Your task to perform on an android device: Search for seafood restaurants on Google Maps Image 0: 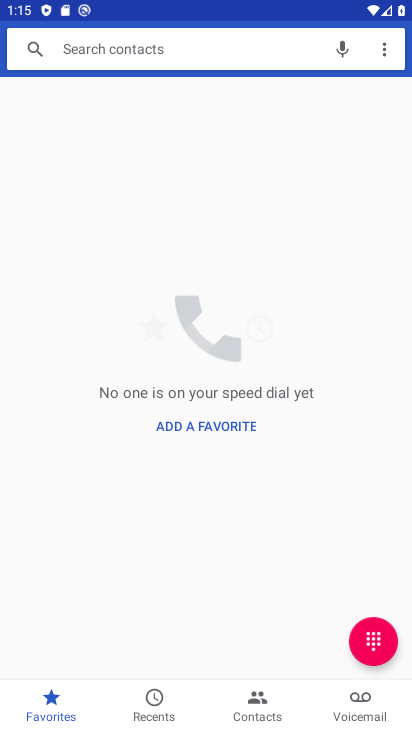
Step 0: press home button
Your task to perform on an android device: Search for seafood restaurants on Google Maps Image 1: 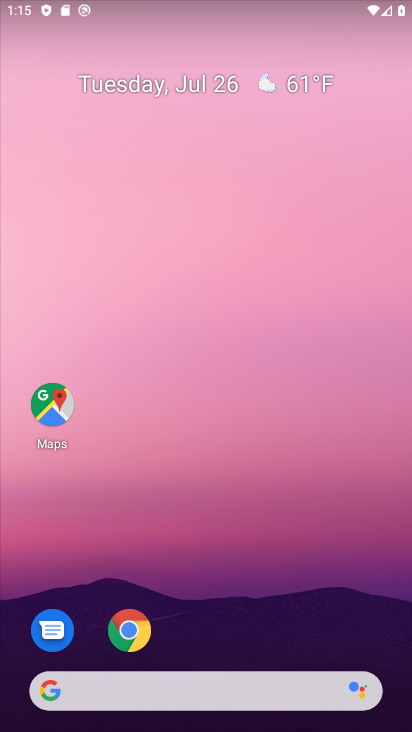
Step 1: click (44, 404)
Your task to perform on an android device: Search for seafood restaurants on Google Maps Image 2: 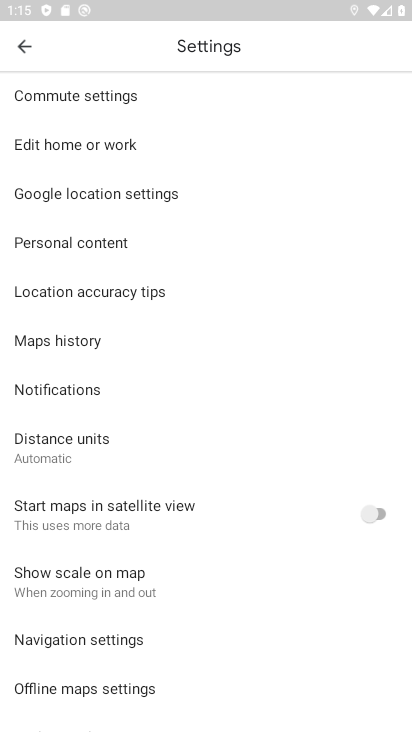
Step 2: click (22, 47)
Your task to perform on an android device: Search for seafood restaurants on Google Maps Image 3: 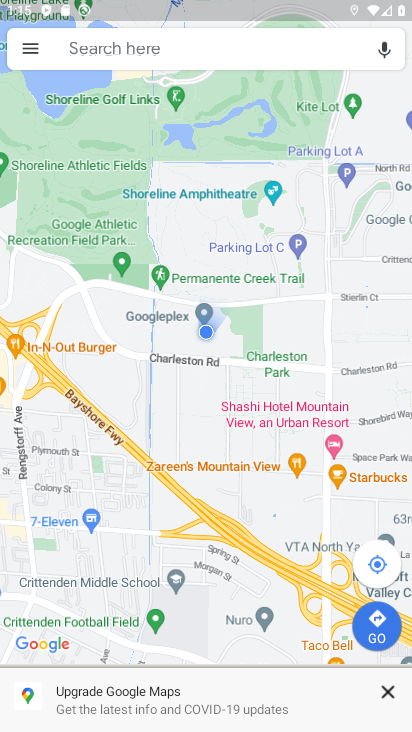
Step 3: click (121, 38)
Your task to perform on an android device: Search for seafood restaurants on Google Maps Image 4: 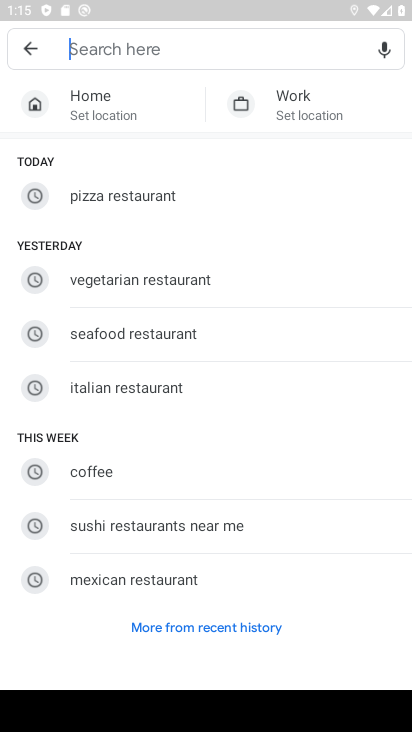
Step 4: type "seafood restaurants"
Your task to perform on an android device: Search for seafood restaurants on Google Maps Image 5: 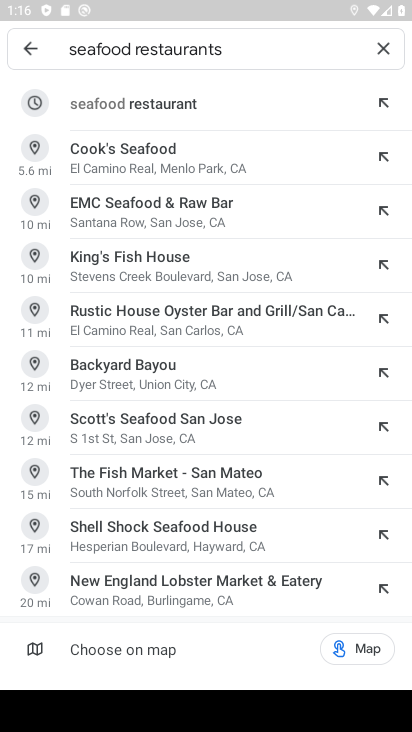
Step 5: click (127, 97)
Your task to perform on an android device: Search for seafood restaurants on Google Maps Image 6: 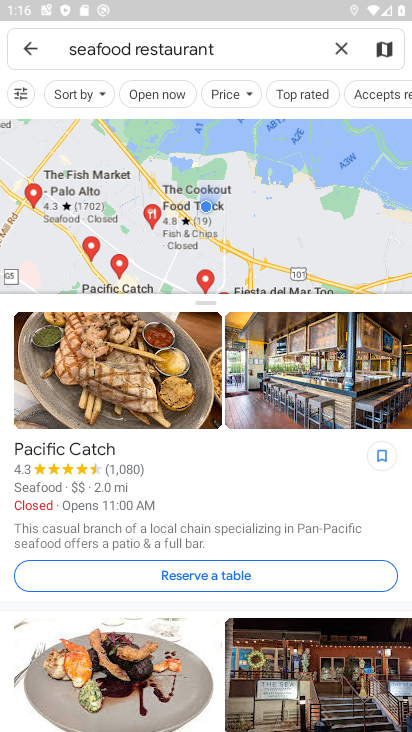
Step 6: task complete